Your task to perform on an android device: change the upload size in google photos Image 0: 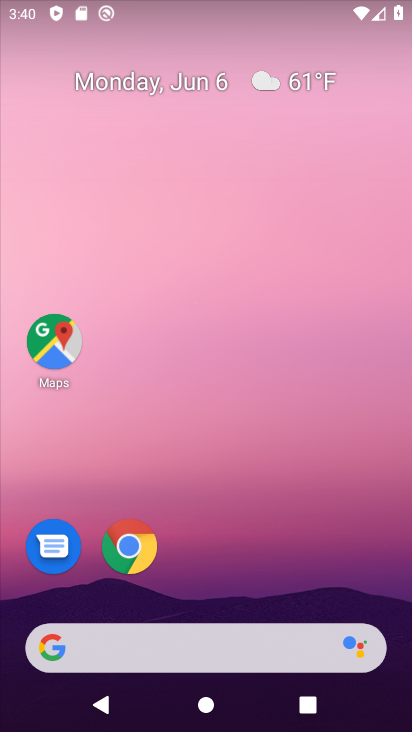
Step 0: drag from (229, 390) to (229, 103)
Your task to perform on an android device: change the upload size in google photos Image 1: 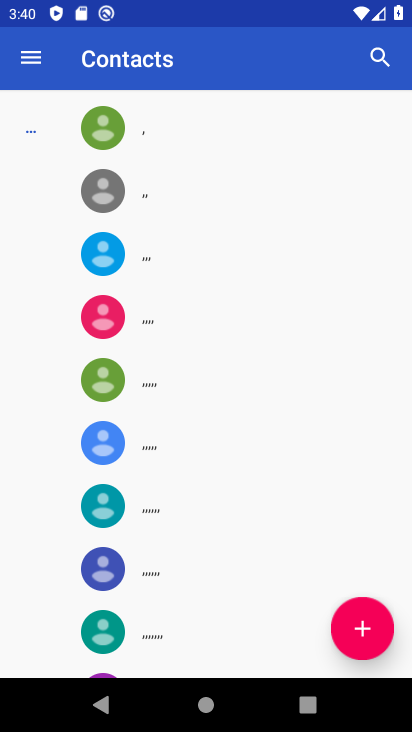
Step 1: press home button
Your task to perform on an android device: change the upload size in google photos Image 2: 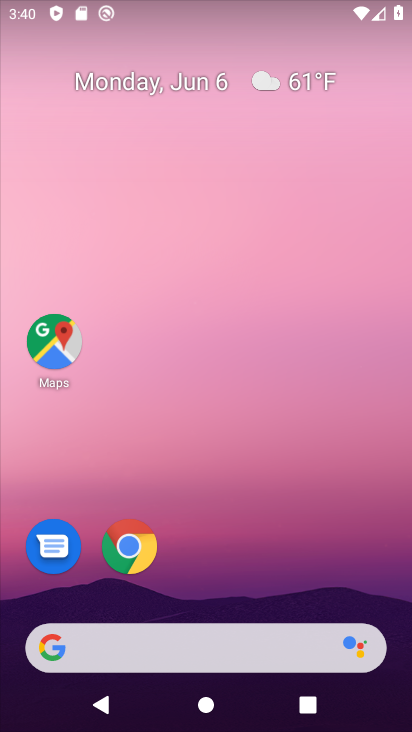
Step 2: drag from (238, 727) to (251, 126)
Your task to perform on an android device: change the upload size in google photos Image 3: 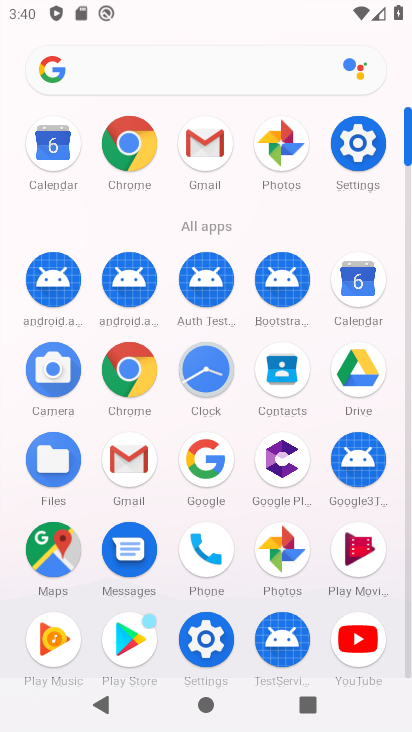
Step 3: click (278, 553)
Your task to perform on an android device: change the upload size in google photos Image 4: 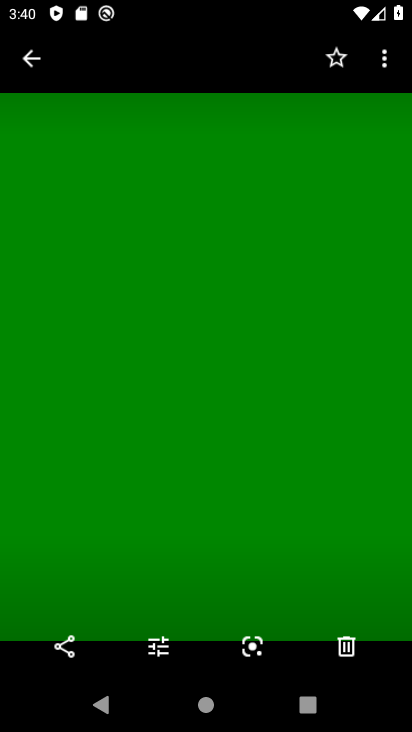
Step 4: click (26, 58)
Your task to perform on an android device: change the upload size in google photos Image 5: 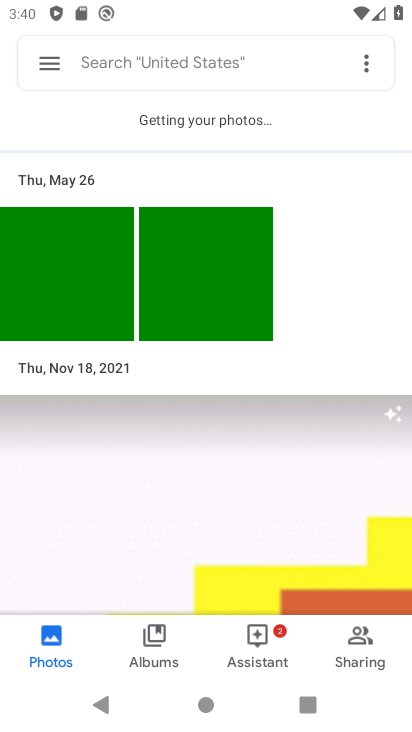
Step 5: click (46, 59)
Your task to perform on an android device: change the upload size in google photos Image 6: 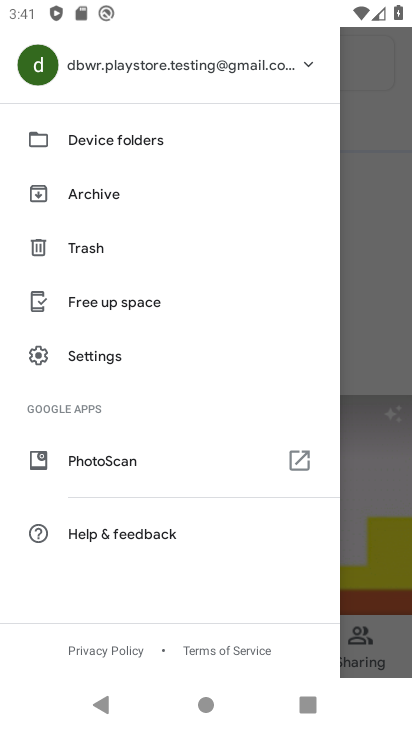
Step 6: click (89, 355)
Your task to perform on an android device: change the upload size in google photos Image 7: 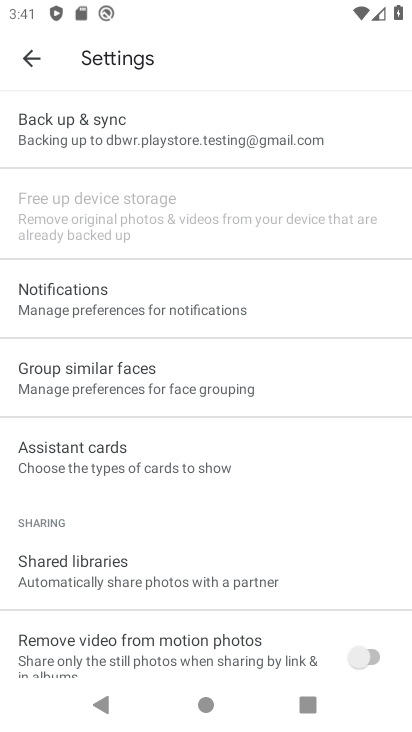
Step 7: click (81, 127)
Your task to perform on an android device: change the upload size in google photos Image 8: 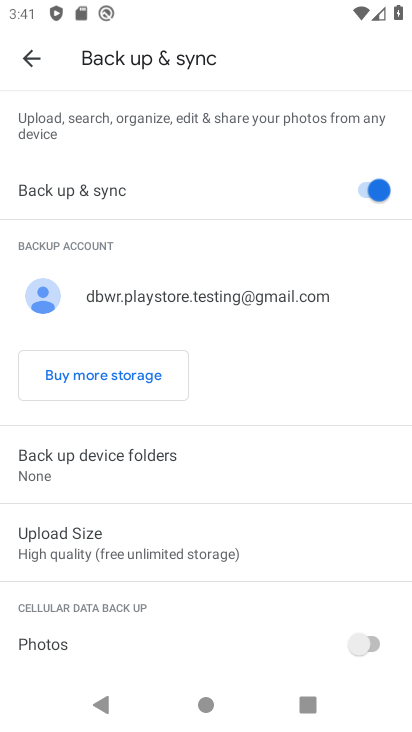
Step 8: click (72, 531)
Your task to perform on an android device: change the upload size in google photos Image 9: 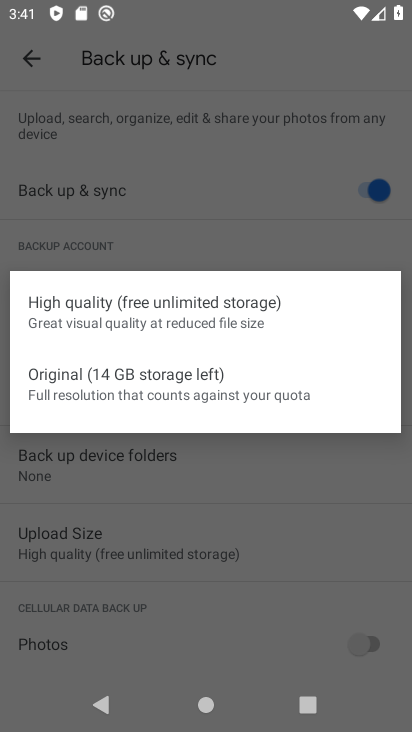
Step 9: click (76, 383)
Your task to perform on an android device: change the upload size in google photos Image 10: 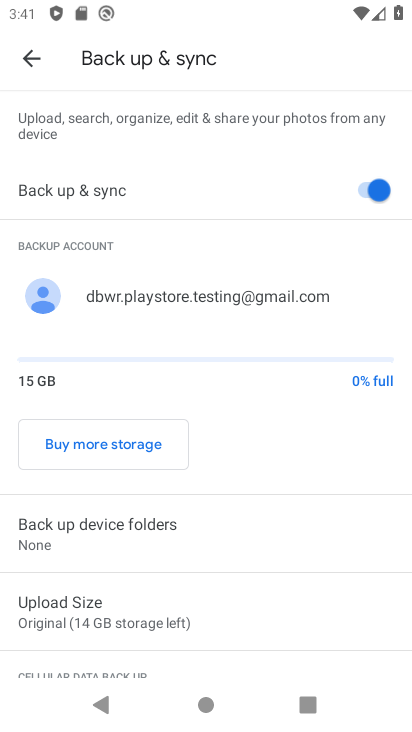
Step 10: task complete